Your task to perform on an android device: What is the speed of a jet? Image 0: 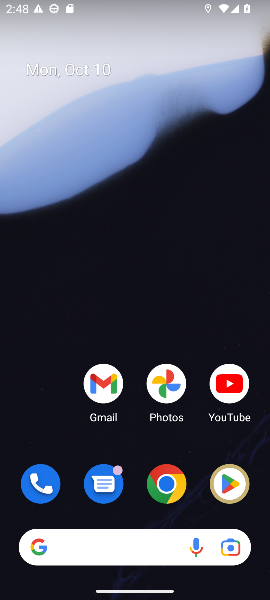
Step 0: click (170, 481)
Your task to perform on an android device: What is the speed of a jet? Image 1: 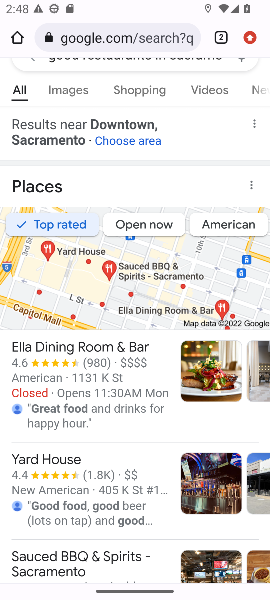
Step 1: click (118, 30)
Your task to perform on an android device: What is the speed of a jet? Image 2: 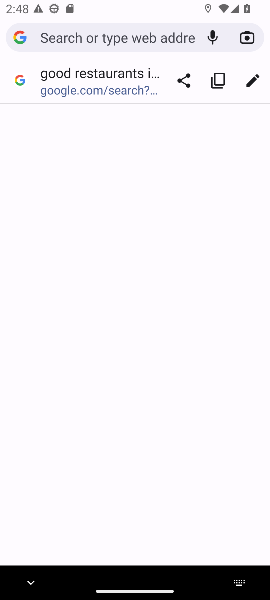
Step 2: type "speed of a jet"
Your task to perform on an android device: What is the speed of a jet? Image 3: 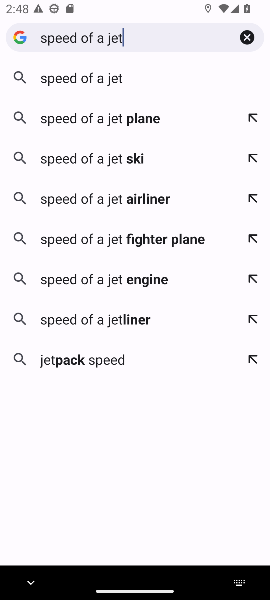
Step 3: click (133, 80)
Your task to perform on an android device: What is the speed of a jet? Image 4: 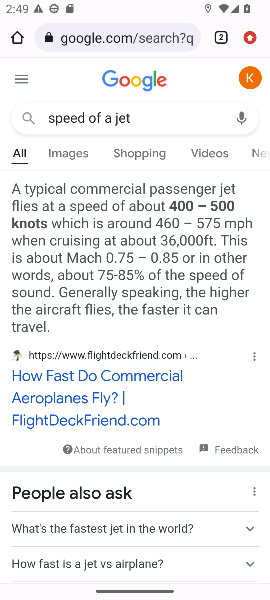
Step 4: task complete